Your task to perform on an android device: turn on javascript in the chrome app Image 0: 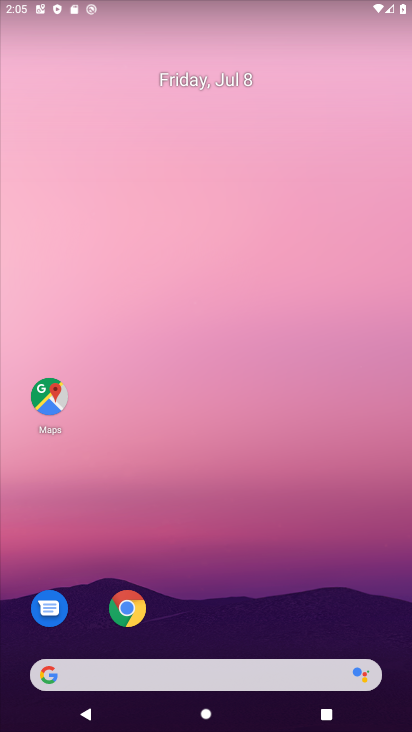
Step 0: drag from (293, 368) to (296, 247)
Your task to perform on an android device: turn on javascript in the chrome app Image 1: 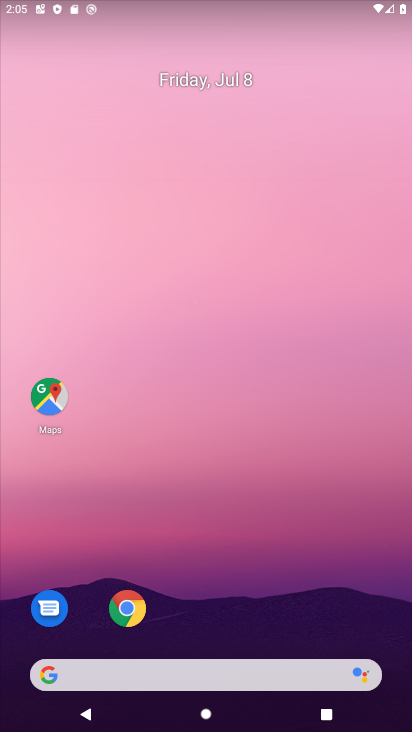
Step 1: drag from (244, 640) to (284, 179)
Your task to perform on an android device: turn on javascript in the chrome app Image 2: 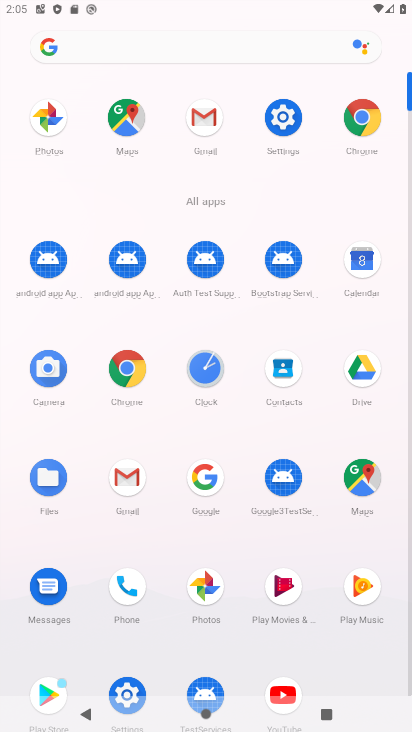
Step 2: click (127, 368)
Your task to perform on an android device: turn on javascript in the chrome app Image 3: 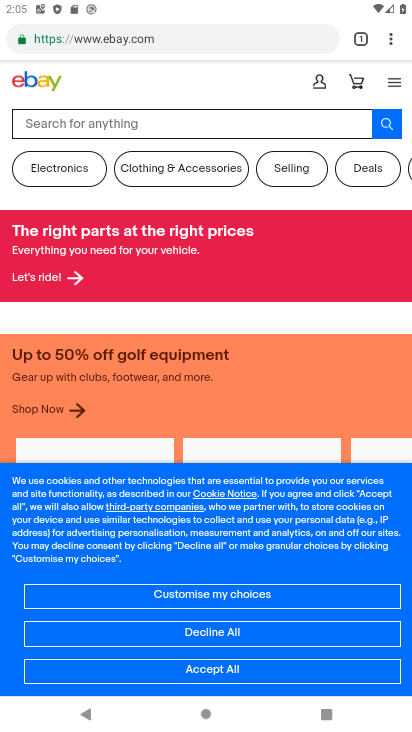
Step 3: drag from (383, 33) to (246, 468)
Your task to perform on an android device: turn on javascript in the chrome app Image 4: 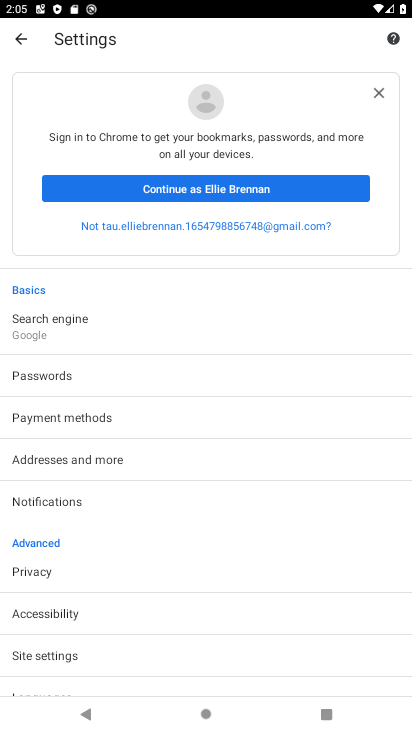
Step 4: drag from (202, 621) to (233, 484)
Your task to perform on an android device: turn on javascript in the chrome app Image 5: 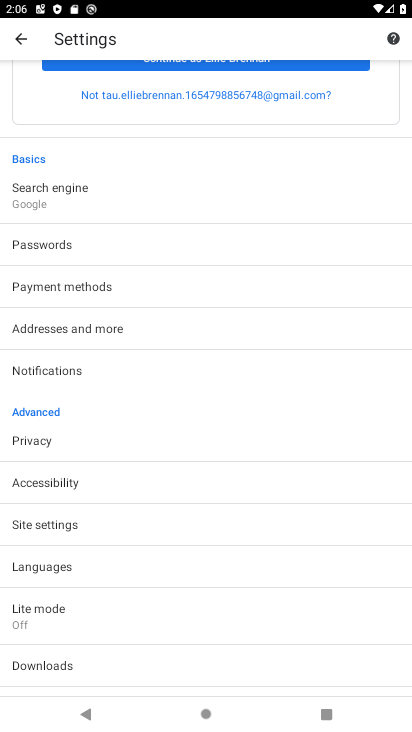
Step 5: click (42, 536)
Your task to perform on an android device: turn on javascript in the chrome app Image 6: 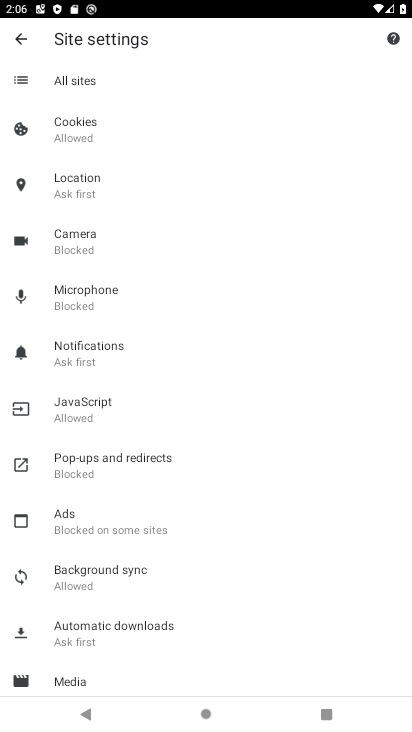
Step 6: click (101, 424)
Your task to perform on an android device: turn on javascript in the chrome app Image 7: 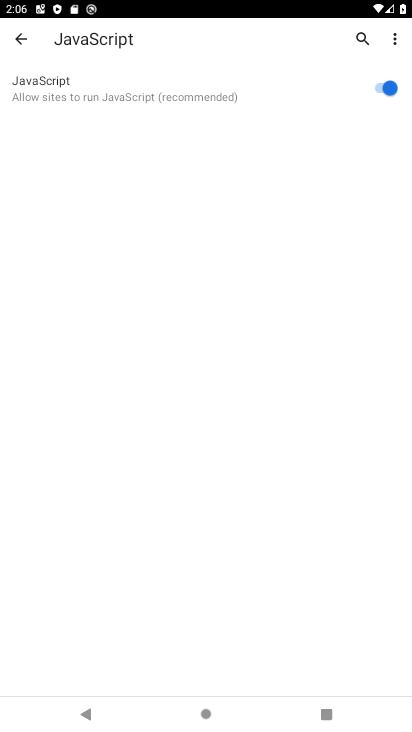
Step 7: task complete